Your task to perform on an android device: What's a good restaurant in Dallas? Image 0: 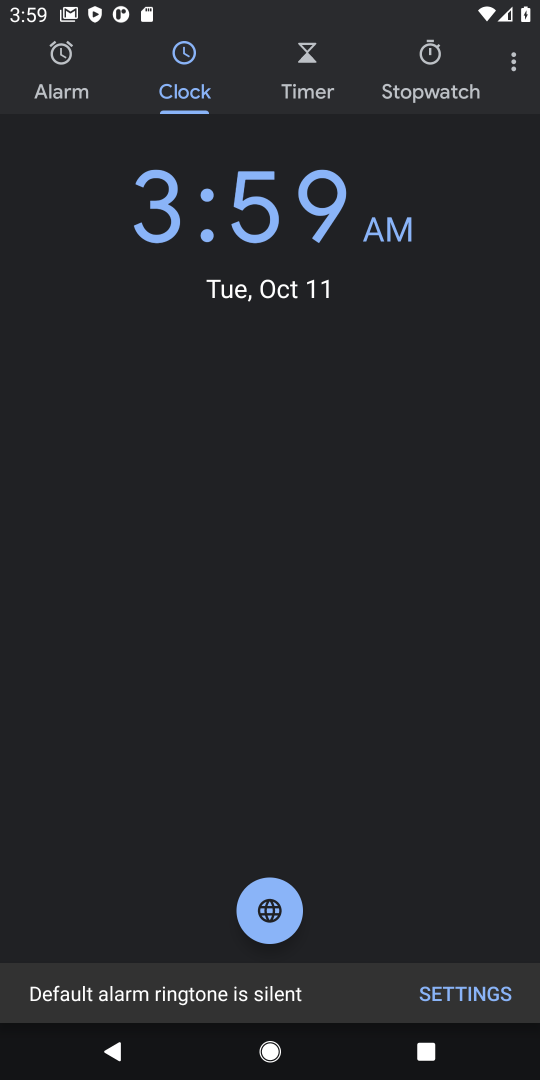
Step 0: press home button
Your task to perform on an android device: What's a good restaurant in Dallas? Image 1: 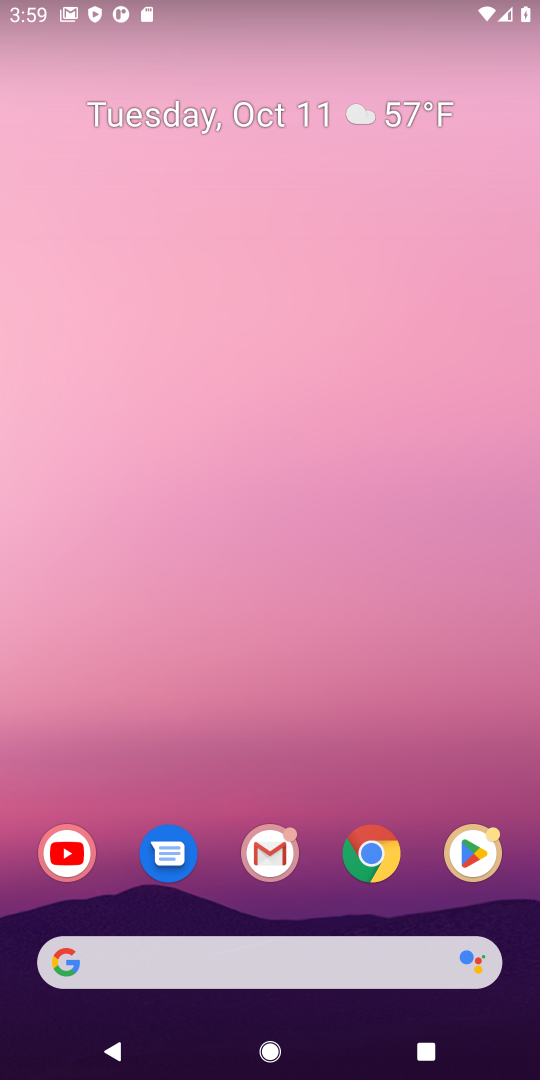
Step 1: click (373, 858)
Your task to perform on an android device: What's a good restaurant in Dallas? Image 2: 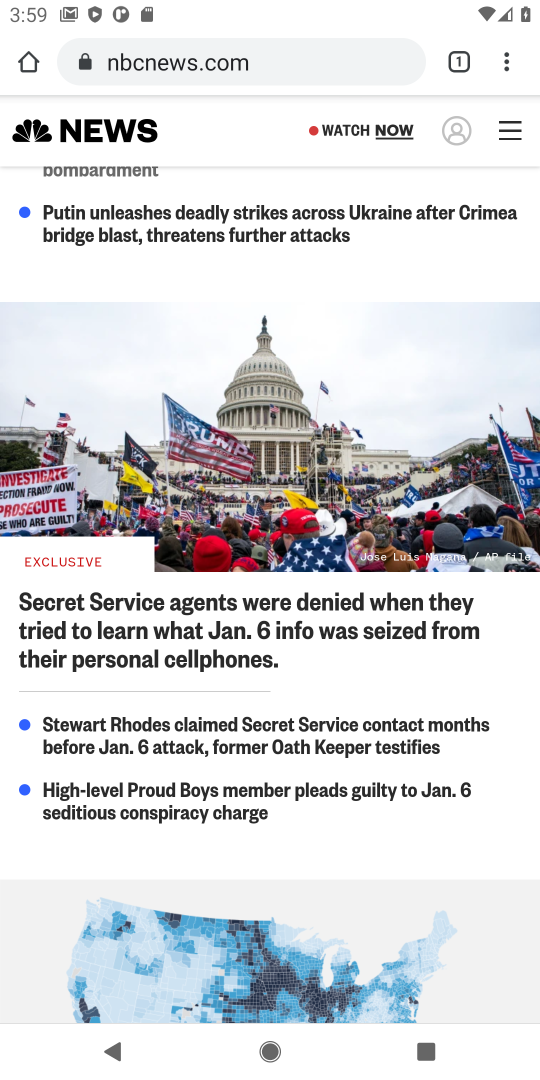
Step 2: click (266, 56)
Your task to perform on an android device: What's a good restaurant in Dallas? Image 3: 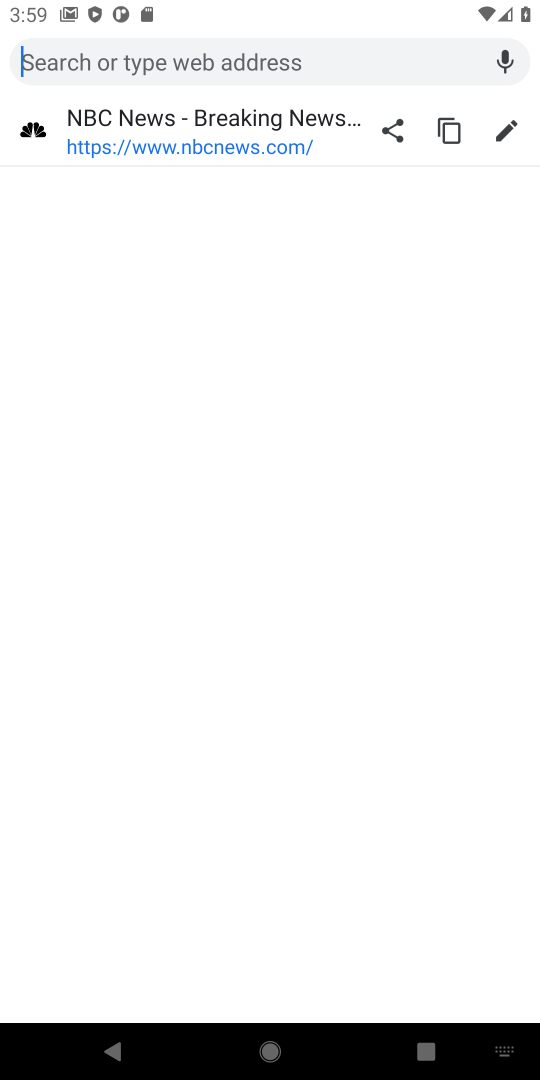
Step 3: type "good restaurant in Dallas"
Your task to perform on an android device: What's a good restaurant in Dallas? Image 4: 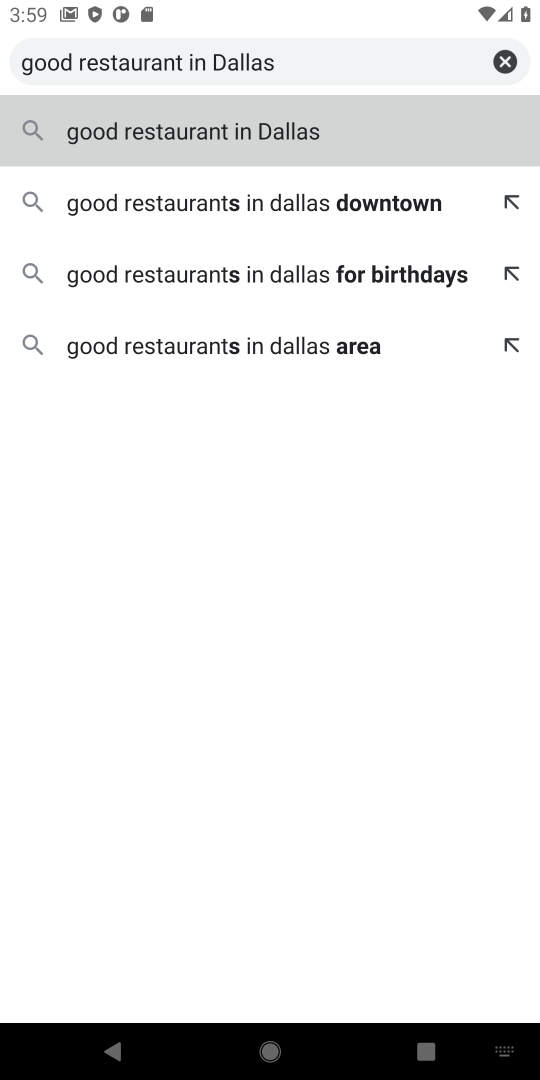
Step 4: click (187, 115)
Your task to perform on an android device: What's a good restaurant in Dallas? Image 5: 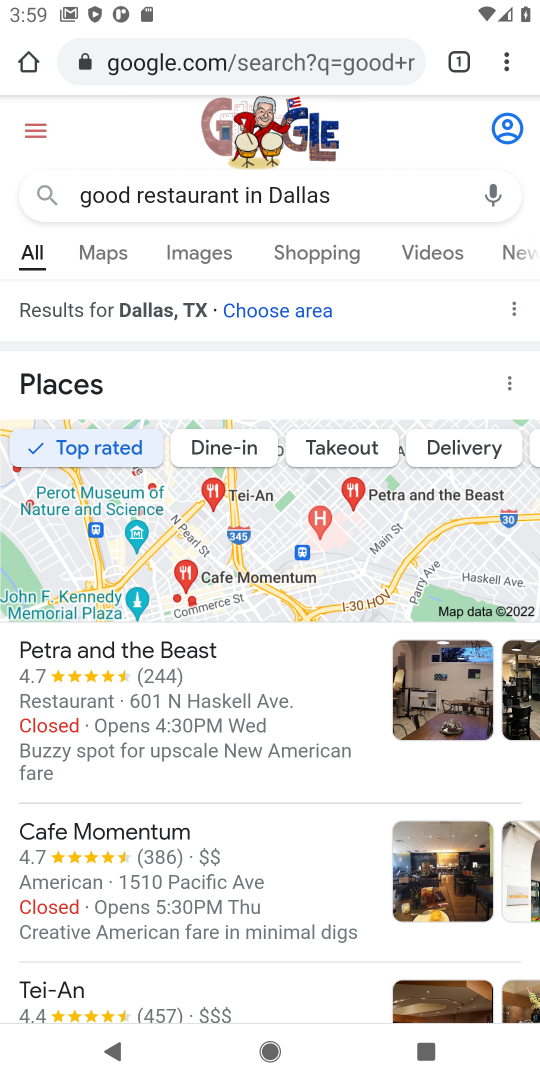
Step 5: drag from (261, 904) to (240, 226)
Your task to perform on an android device: What's a good restaurant in Dallas? Image 6: 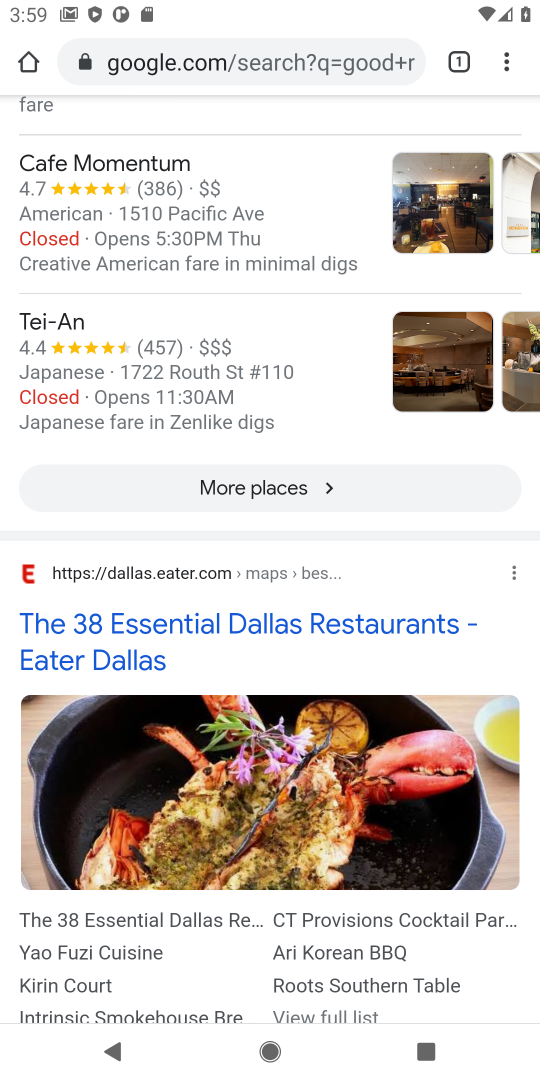
Step 6: click (118, 633)
Your task to perform on an android device: What's a good restaurant in Dallas? Image 7: 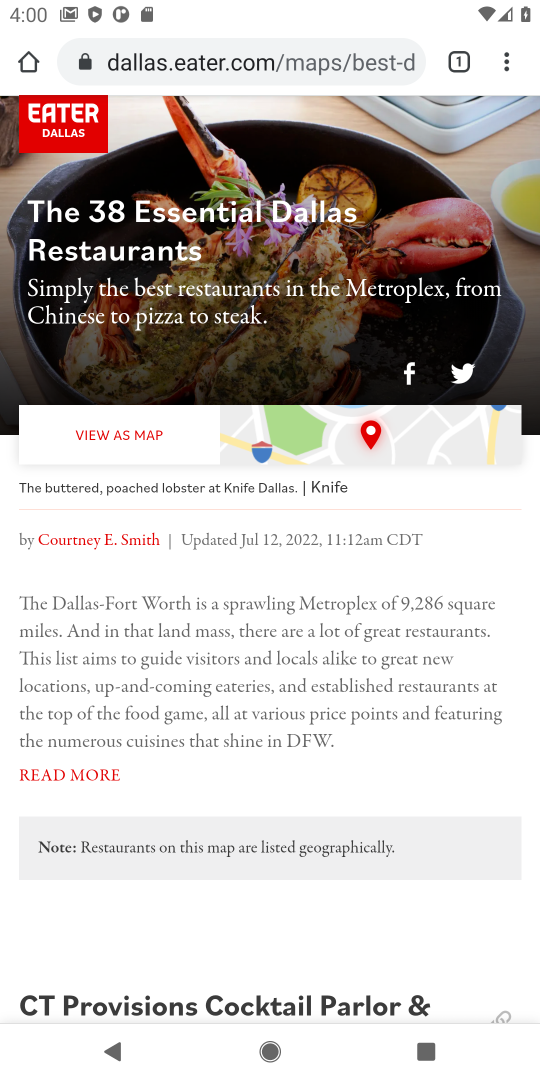
Step 7: task complete